Your task to perform on an android device: delete the emails in spam in the gmail app Image 0: 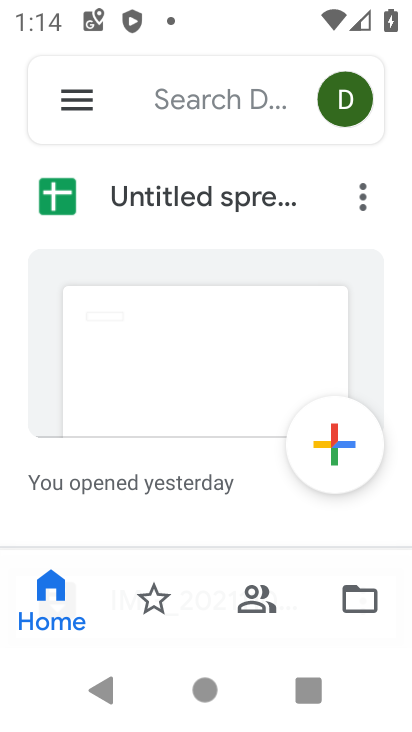
Step 0: press home button
Your task to perform on an android device: delete the emails in spam in the gmail app Image 1: 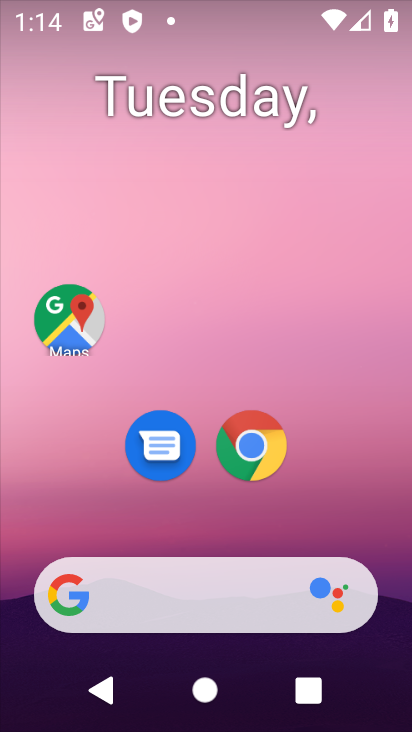
Step 1: drag from (344, 524) to (337, 27)
Your task to perform on an android device: delete the emails in spam in the gmail app Image 2: 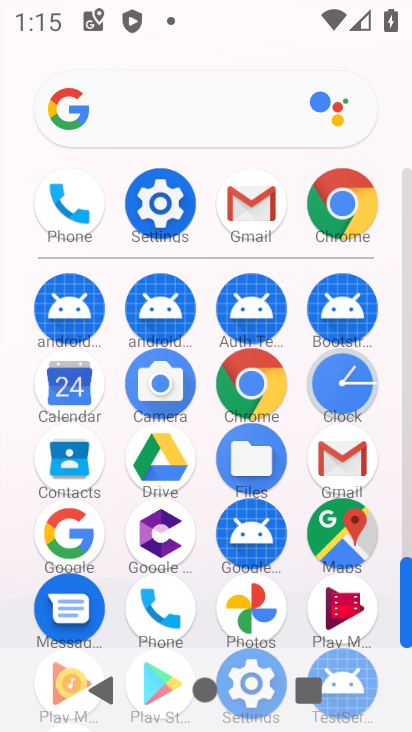
Step 2: click (253, 206)
Your task to perform on an android device: delete the emails in spam in the gmail app Image 3: 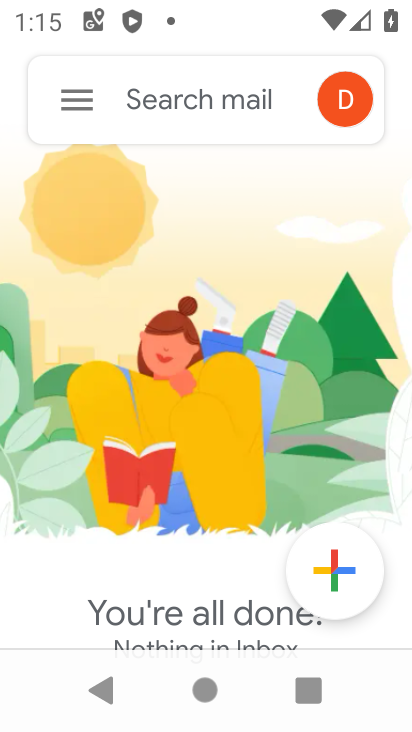
Step 3: click (81, 116)
Your task to perform on an android device: delete the emails in spam in the gmail app Image 4: 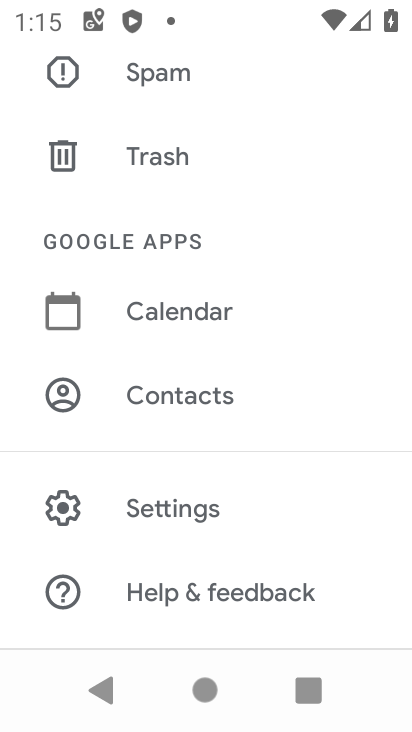
Step 4: drag from (211, 134) to (199, 531)
Your task to perform on an android device: delete the emails in spam in the gmail app Image 5: 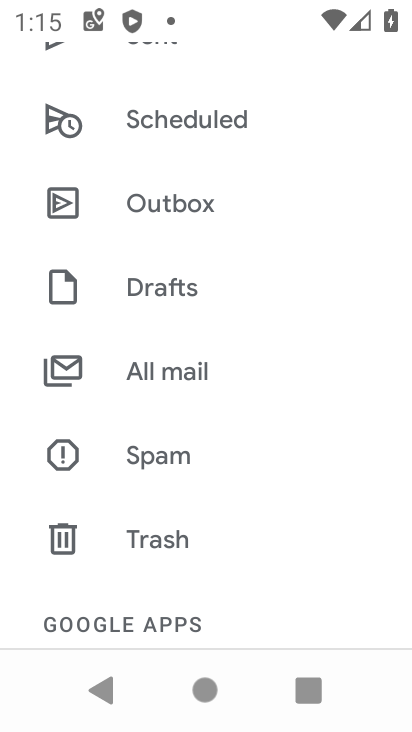
Step 5: drag from (234, 164) to (201, 484)
Your task to perform on an android device: delete the emails in spam in the gmail app Image 6: 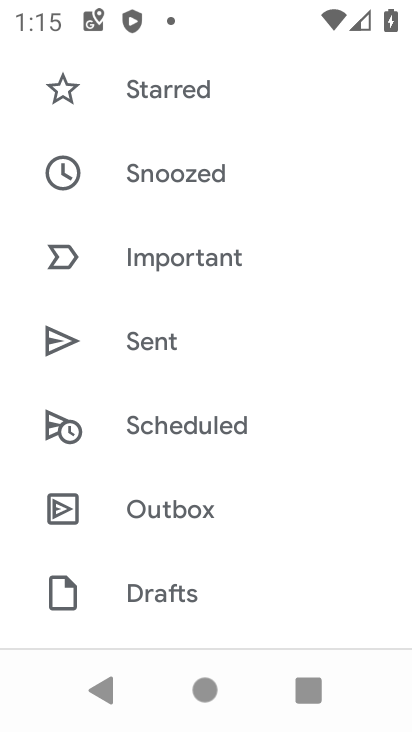
Step 6: drag from (203, 228) to (199, 526)
Your task to perform on an android device: delete the emails in spam in the gmail app Image 7: 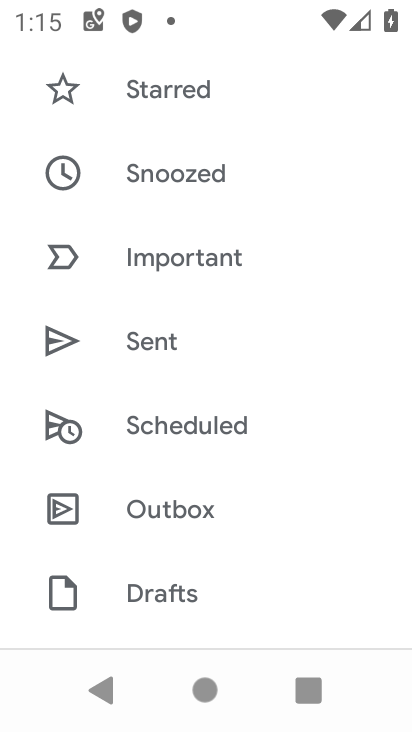
Step 7: drag from (207, 169) to (206, 532)
Your task to perform on an android device: delete the emails in spam in the gmail app Image 8: 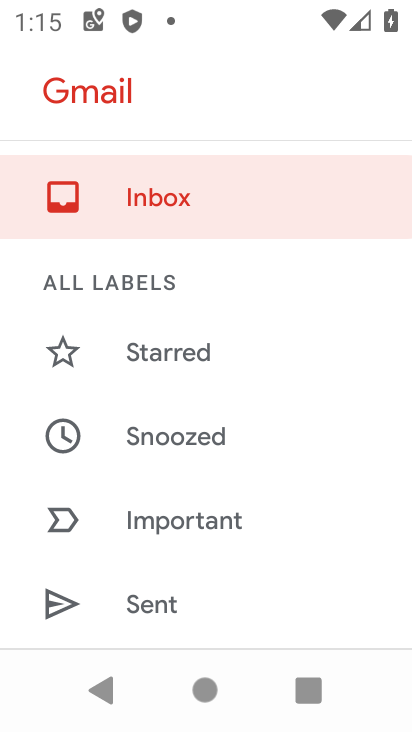
Step 8: drag from (184, 590) to (172, 232)
Your task to perform on an android device: delete the emails in spam in the gmail app Image 9: 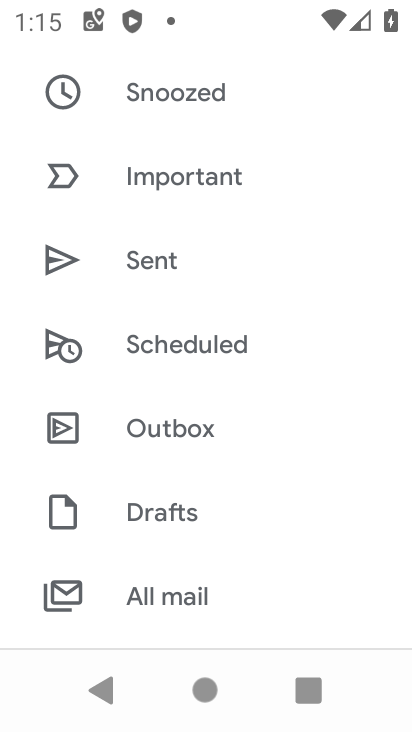
Step 9: drag from (147, 568) to (173, 228)
Your task to perform on an android device: delete the emails in spam in the gmail app Image 10: 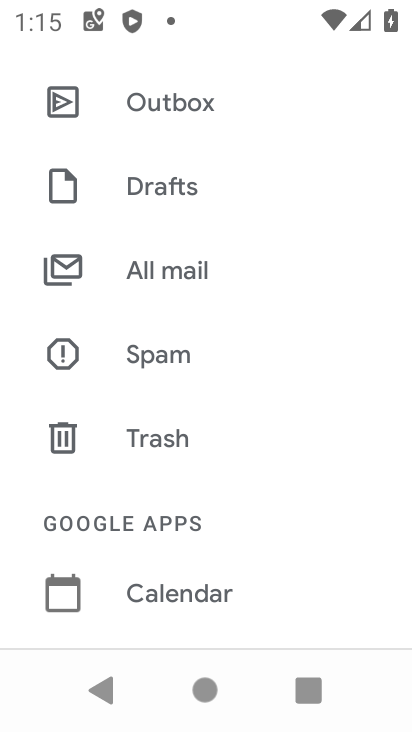
Step 10: click (149, 361)
Your task to perform on an android device: delete the emails in spam in the gmail app Image 11: 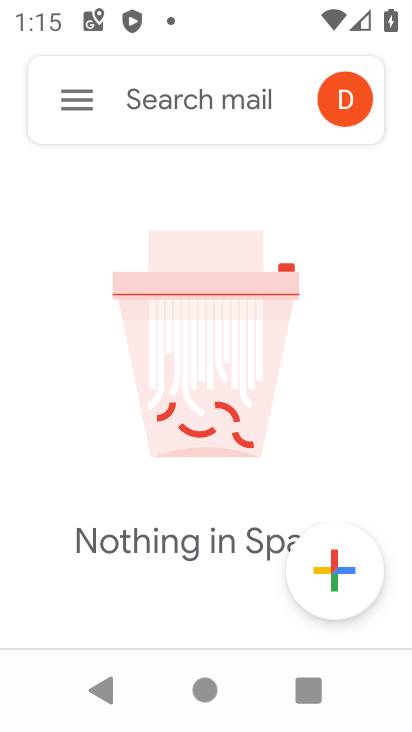
Step 11: task complete